Your task to perform on an android device: turn off improve location accuracy Image 0: 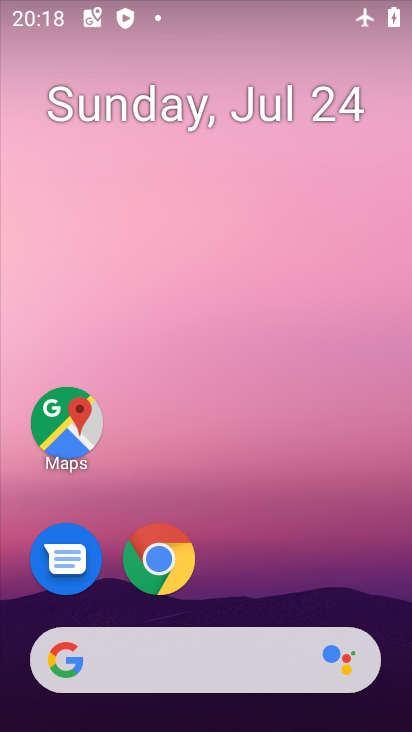
Step 0: press home button
Your task to perform on an android device: turn off improve location accuracy Image 1: 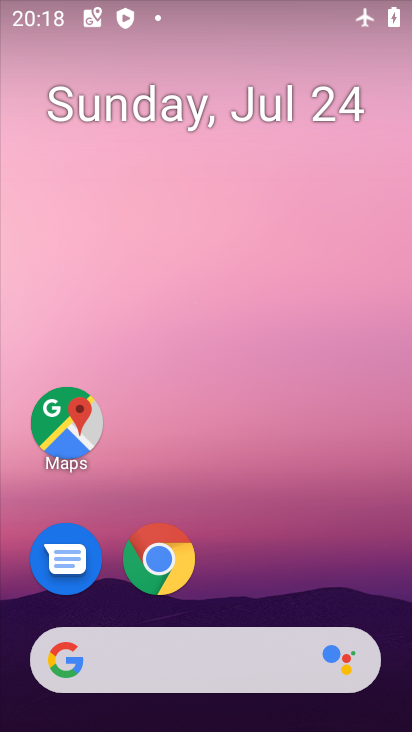
Step 1: drag from (336, 592) to (333, 106)
Your task to perform on an android device: turn off improve location accuracy Image 2: 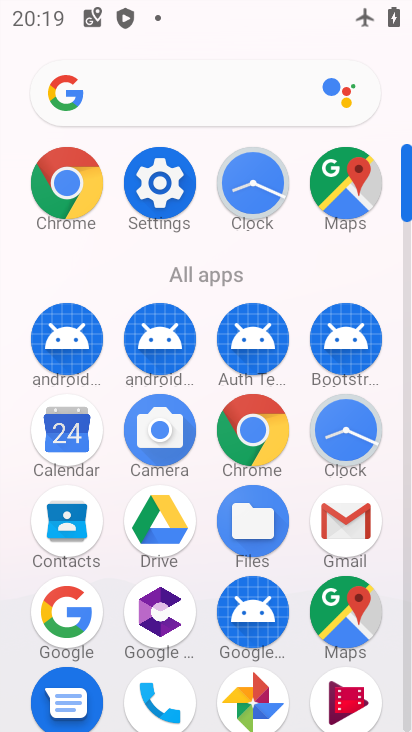
Step 2: click (169, 188)
Your task to perform on an android device: turn off improve location accuracy Image 3: 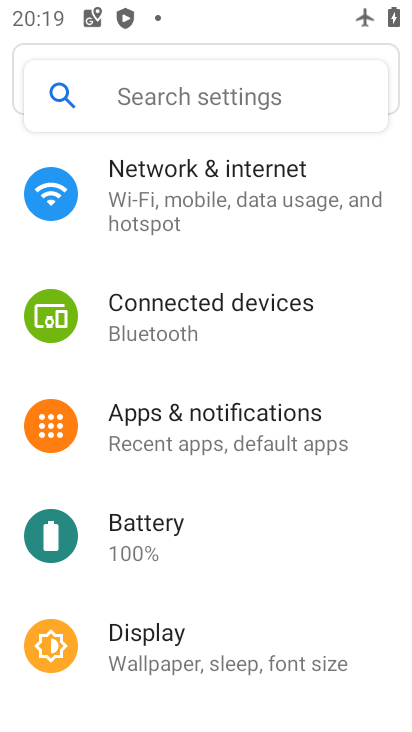
Step 3: drag from (372, 525) to (365, 420)
Your task to perform on an android device: turn off improve location accuracy Image 4: 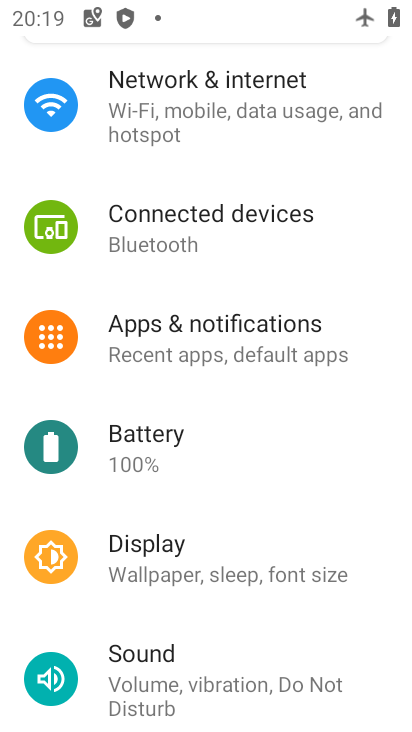
Step 4: drag from (372, 609) to (373, 472)
Your task to perform on an android device: turn off improve location accuracy Image 5: 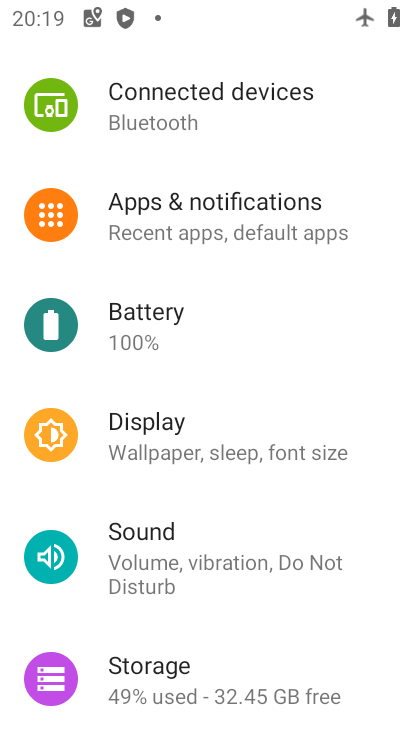
Step 5: drag from (359, 600) to (361, 442)
Your task to perform on an android device: turn off improve location accuracy Image 6: 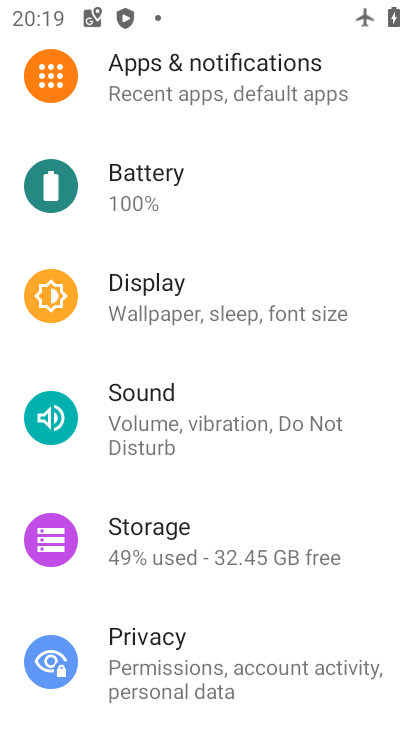
Step 6: drag from (356, 615) to (363, 462)
Your task to perform on an android device: turn off improve location accuracy Image 7: 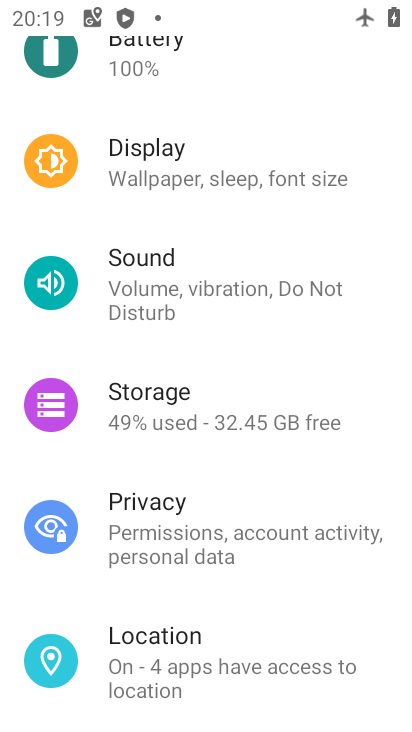
Step 7: drag from (358, 624) to (357, 484)
Your task to perform on an android device: turn off improve location accuracy Image 8: 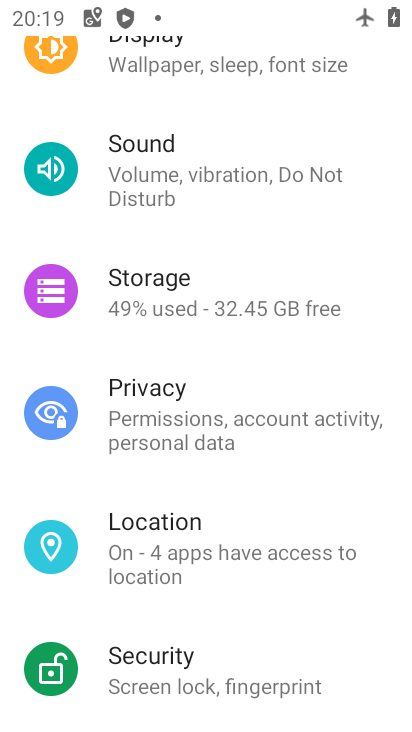
Step 8: drag from (338, 653) to (338, 546)
Your task to perform on an android device: turn off improve location accuracy Image 9: 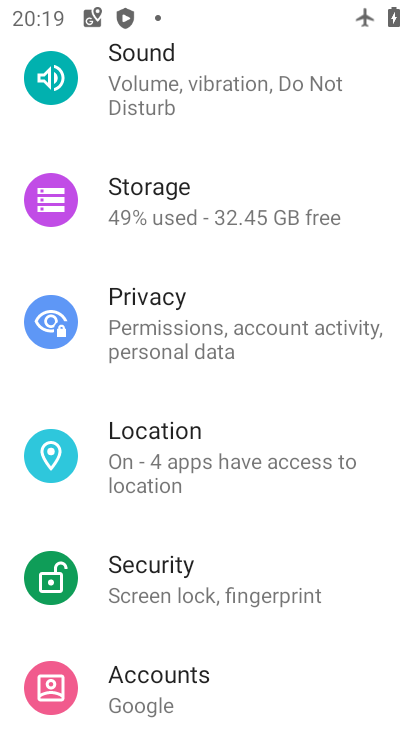
Step 9: click (294, 468)
Your task to perform on an android device: turn off improve location accuracy Image 10: 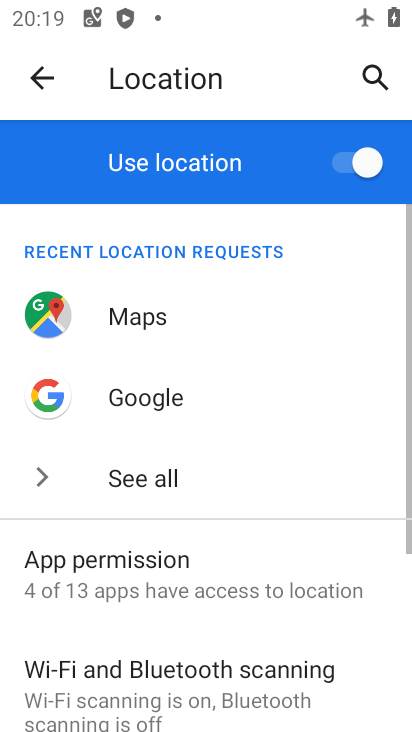
Step 10: drag from (368, 563) to (369, 485)
Your task to perform on an android device: turn off improve location accuracy Image 11: 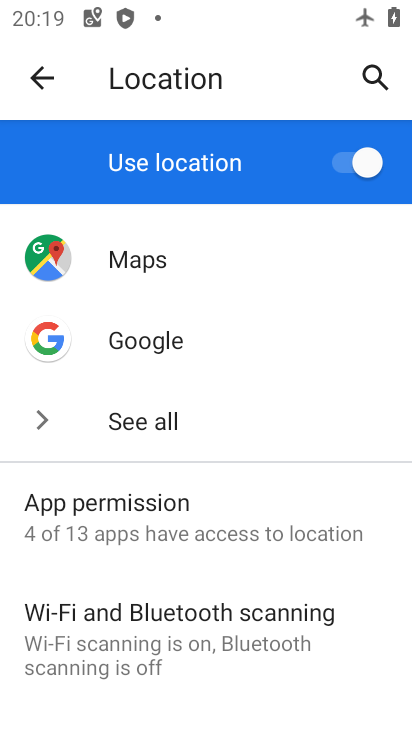
Step 11: drag from (363, 606) to (363, 527)
Your task to perform on an android device: turn off improve location accuracy Image 12: 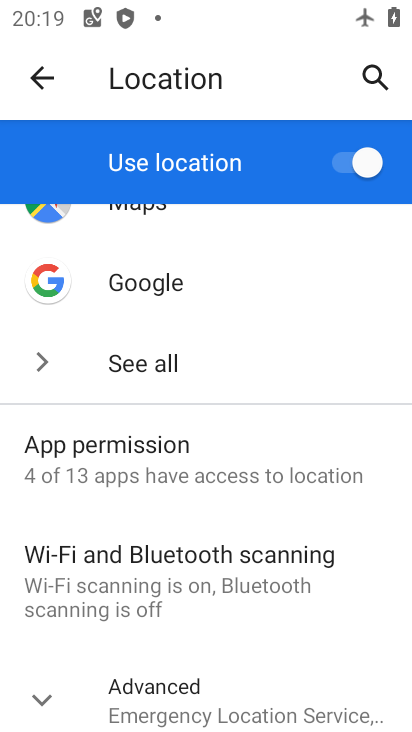
Step 12: drag from (358, 624) to (353, 439)
Your task to perform on an android device: turn off improve location accuracy Image 13: 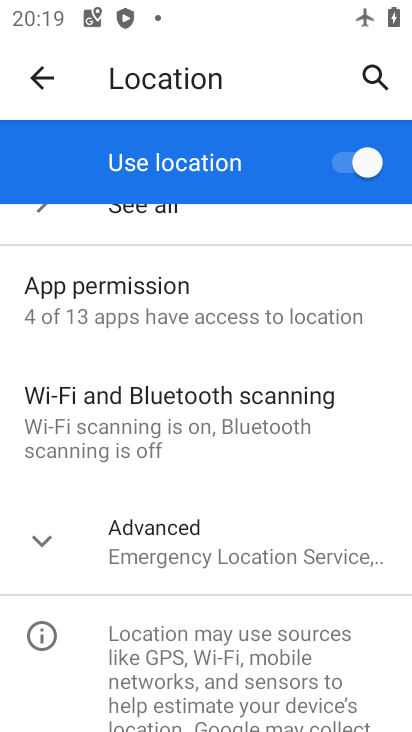
Step 13: click (354, 546)
Your task to perform on an android device: turn off improve location accuracy Image 14: 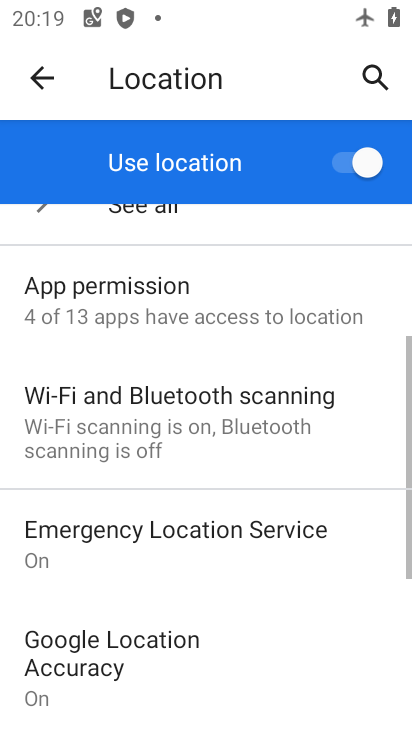
Step 14: drag from (354, 601) to (353, 498)
Your task to perform on an android device: turn off improve location accuracy Image 15: 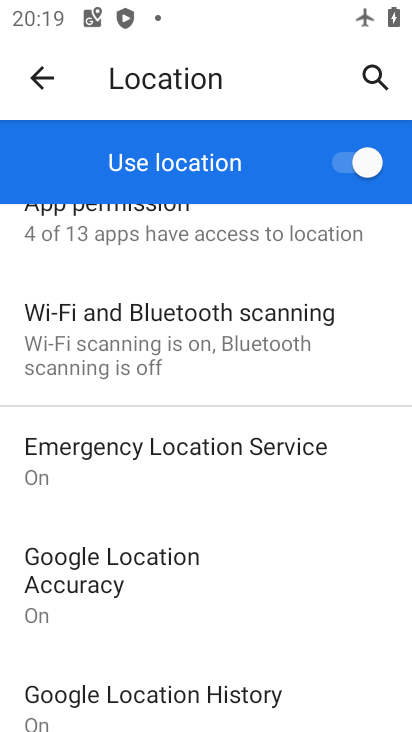
Step 15: drag from (347, 587) to (362, 468)
Your task to perform on an android device: turn off improve location accuracy Image 16: 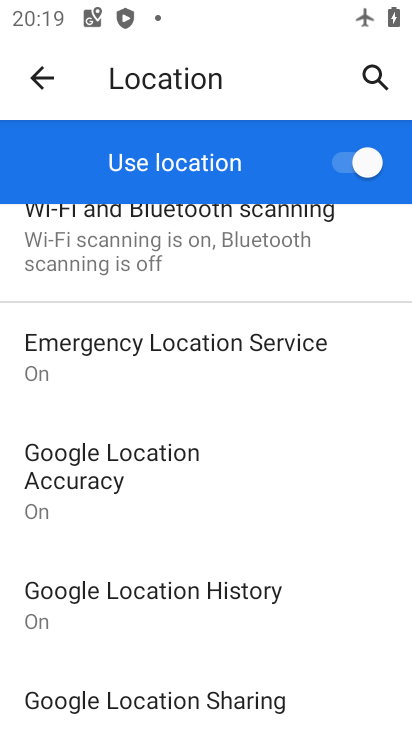
Step 16: drag from (308, 549) to (317, 436)
Your task to perform on an android device: turn off improve location accuracy Image 17: 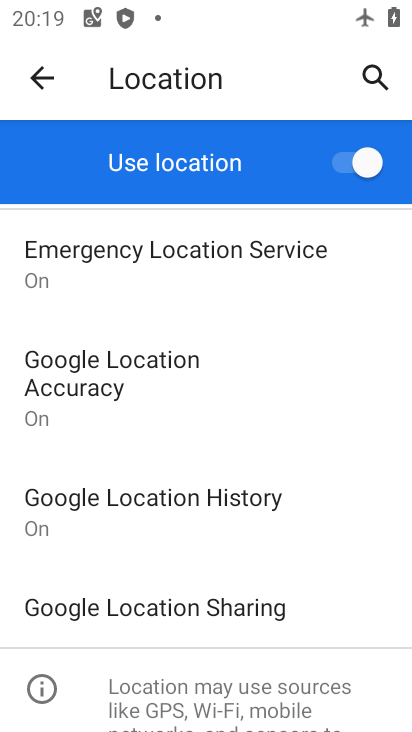
Step 17: click (244, 401)
Your task to perform on an android device: turn off improve location accuracy Image 18: 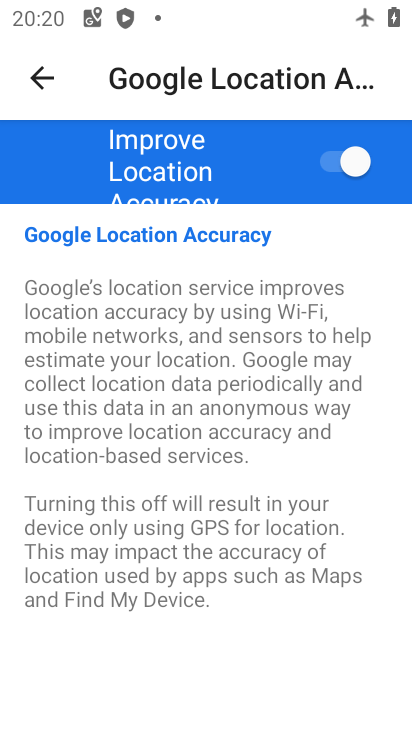
Step 18: click (346, 164)
Your task to perform on an android device: turn off improve location accuracy Image 19: 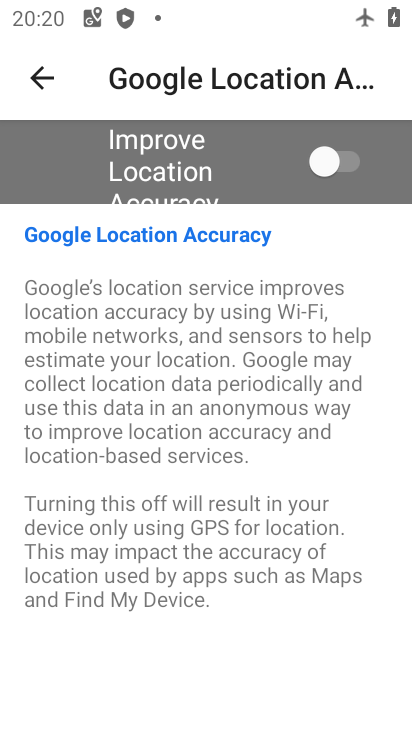
Step 19: task complete